Your task to perform on an android device: Open internet settings Image 0: 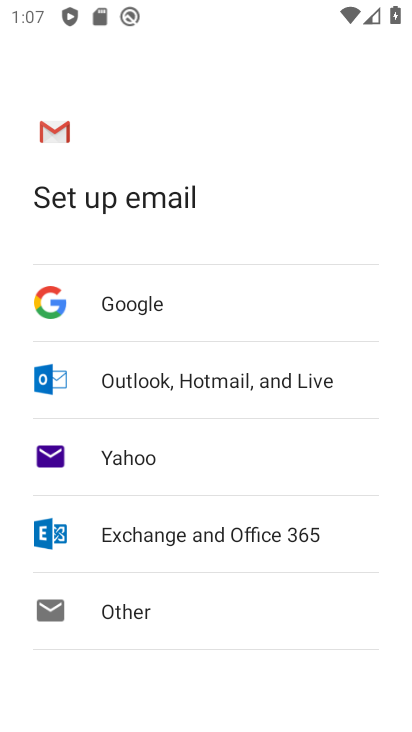
Step 0: press back button
Your task to perform on an android device: Open internet settings Image 1: 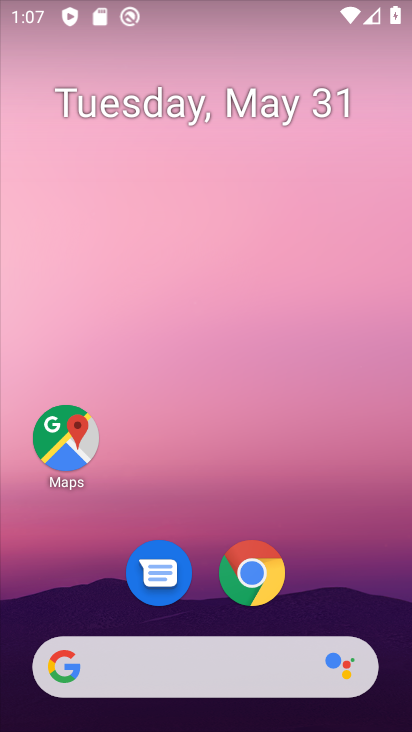
Step 1: drag from (383, 605) to (379, 141)
Your task to perform on an android device: Open internet settings Image 2: 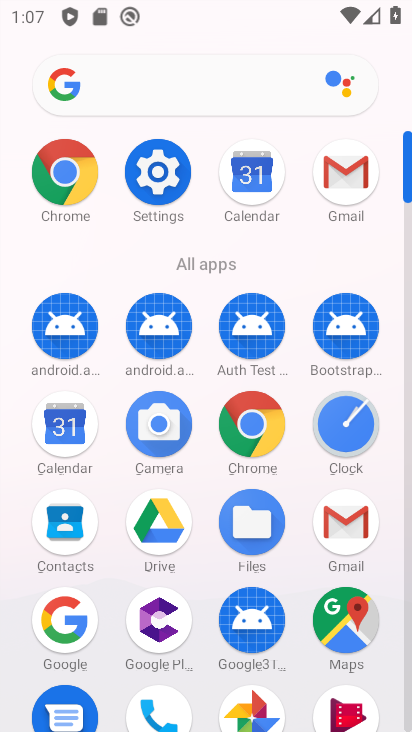
Step 2: click (167, 190)
Your task to perform on an android device: Open internet settings Image 3: 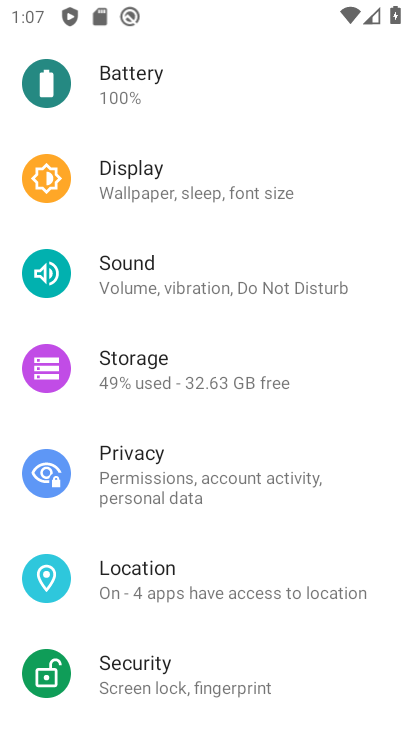
Step 3: drag from (342, 502) to (347, 384)
Your task to perform on an android device: Open internet settings Image 4: 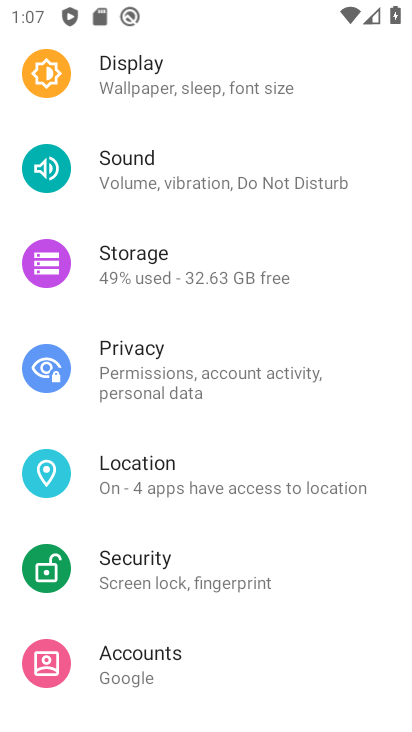
Step 4: drag from (352, 563) to (352, 442)
Your task to perform on an android device: Open internet settings Image 5: 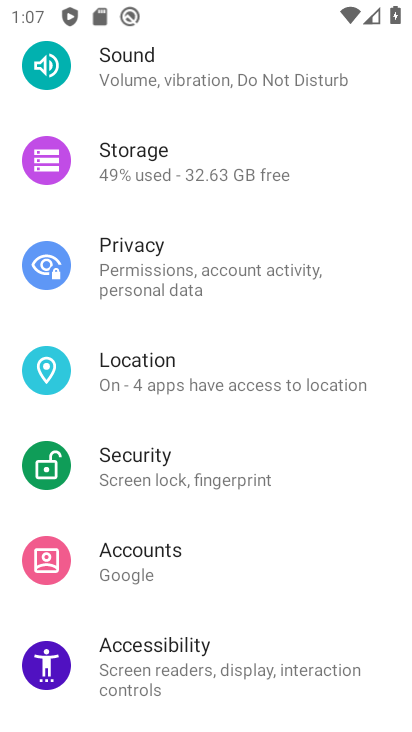
Step 5: drag from (338, 564) to (344, 464)
Your task to perform on an android device: Open internet settings Image 6: 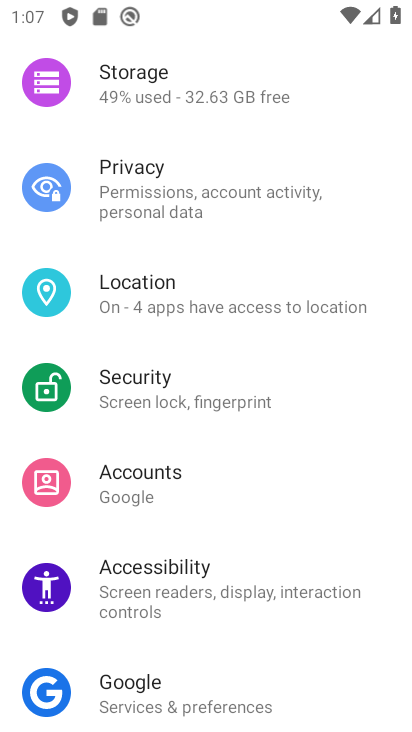
Step 6: drag from (337, 642) to (339, 515)
Your task to perform on an android device: Open internet settings Image 7: 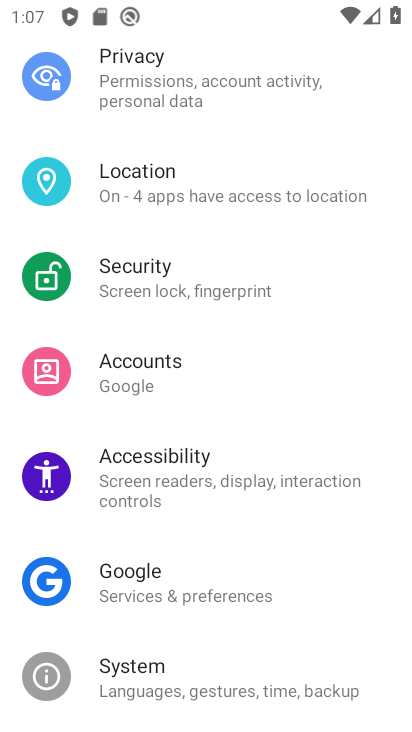
Step 7: drag from (342, 623) to (340, 517)
Your task to perform on an android device: Open internet settings Image 8: 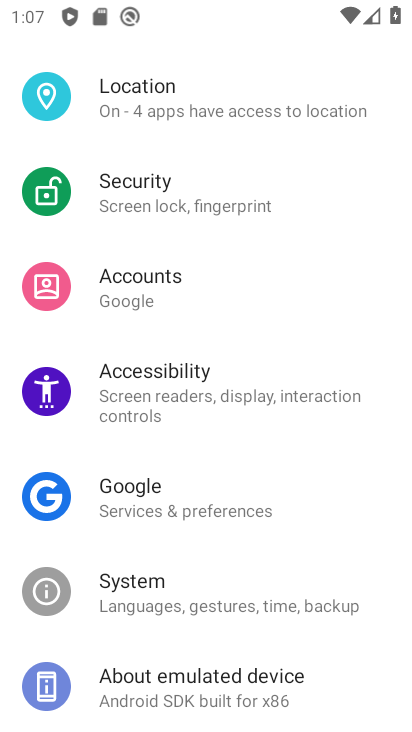
Step 8: drag from (348, 639) to (355, 537)
Your task to perform on an android device: Open internet settings Image 9: 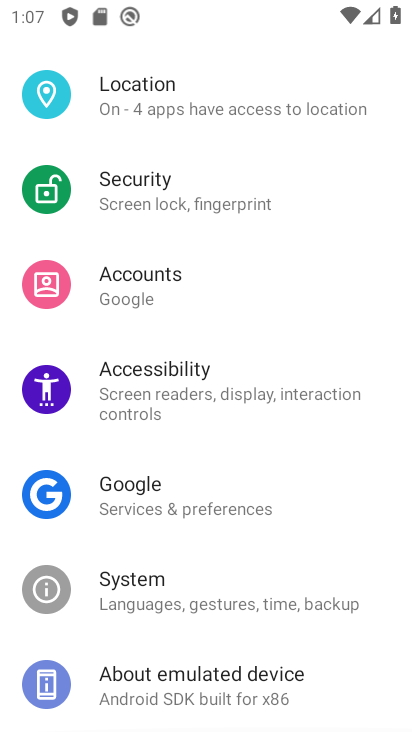
Step 9: drag from (351, 455) to (362, 522)
Your task to perform on an android device: Open internet settings Image 10: 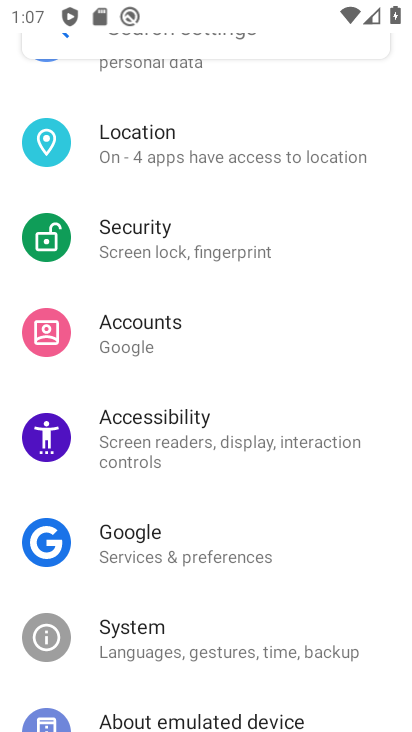
Step 10: drag from (353, 382) to (351, 476)
Your task to perform on an android device: Open internet settings Image 11: 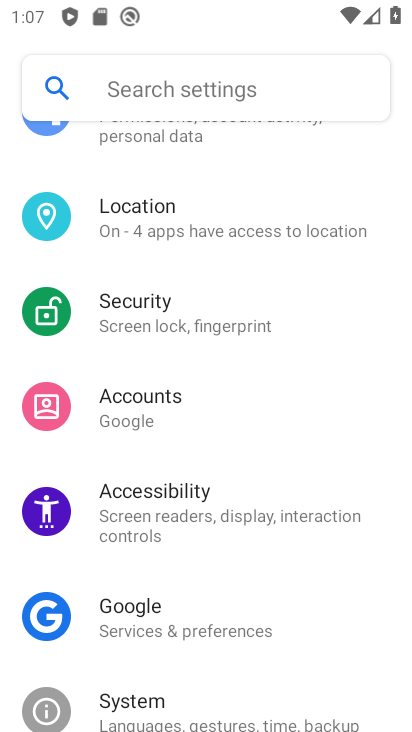
Step 11: drag from (342, 352) to (343, 439)
Your task to perform on an android device: Open internet settings Image 12: 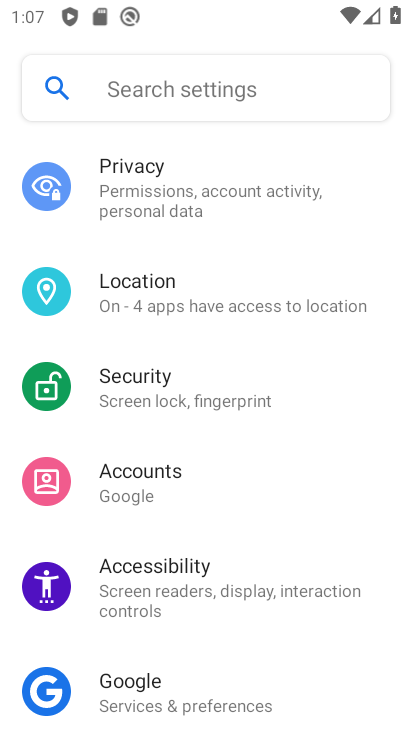
Step 12: drag from (343, 355) to (344, 432)
Your task to perform on an android device: Open internet settings Image 13: 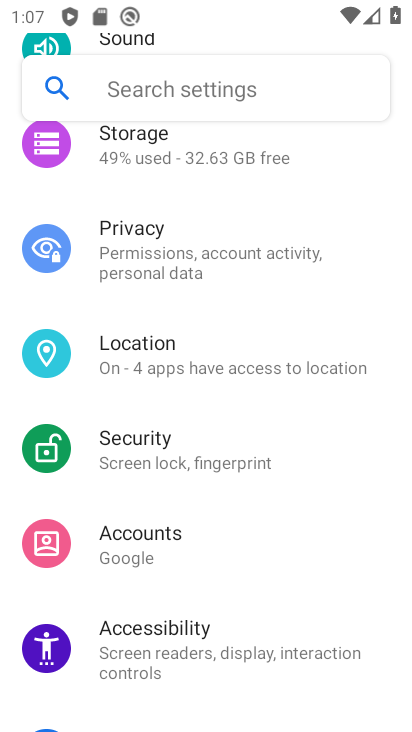
Step 13: drag from (342, 313) to (345, 424)
Your task to perform on an android device: Open internet settings Image 14: 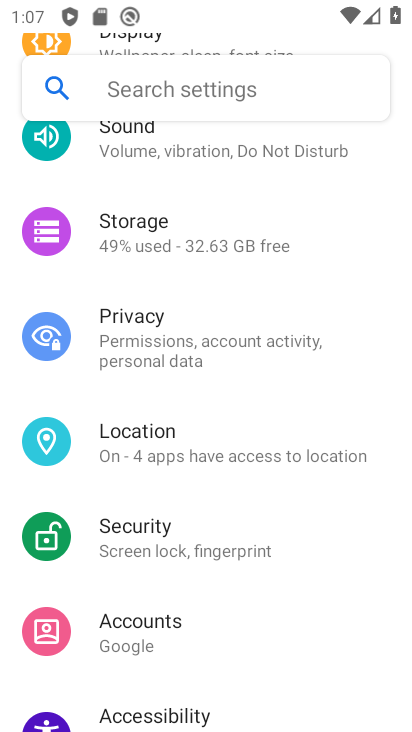
Step 14: drag from (337, 330) to (337, 439)
Your task to perform on an android device: Open internet settings Image 15: 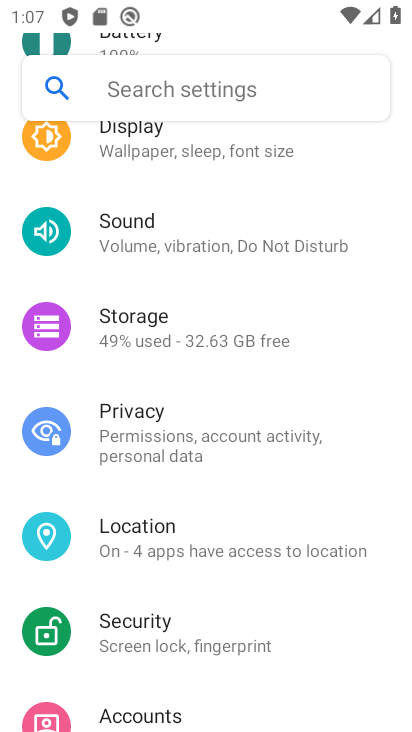
Step 15: drag from (336, 350) to (333, 452)
Your task to perform on an android device: Open internet settings Image 16: 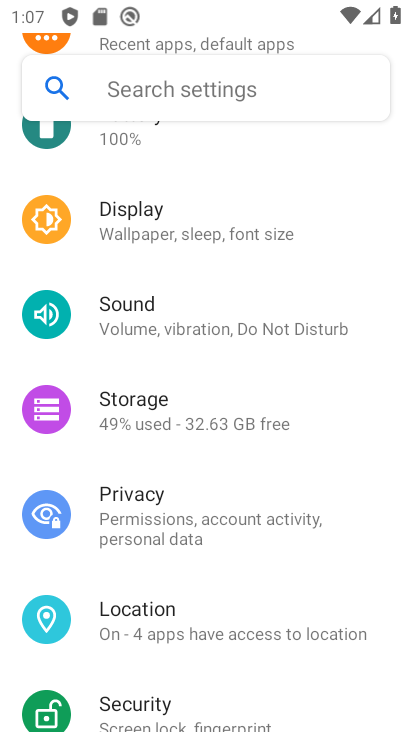
Step 16: drag from (333, 355) to (333, 452)
Your task to perform on an android device: Open internet settings Image 17: 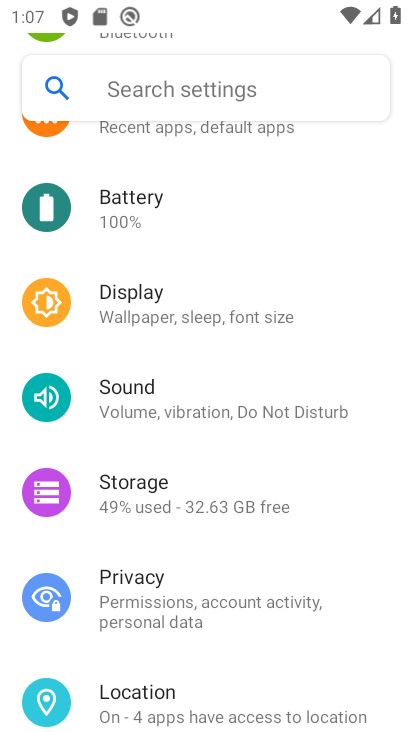
Step 17: drag from (334, 364) to (334, 477)
Your task to perform on an android device: Open internet settings Image 18: 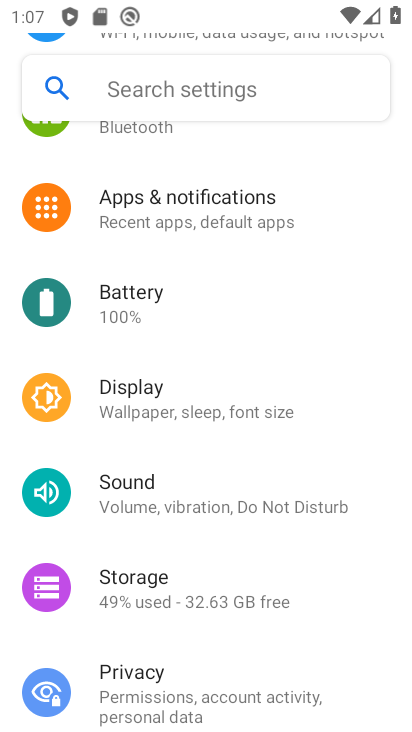
Step 18: drag from (325, 383) to (325, 483)
Your task to perform on an android device: Open internet settings Image 19: 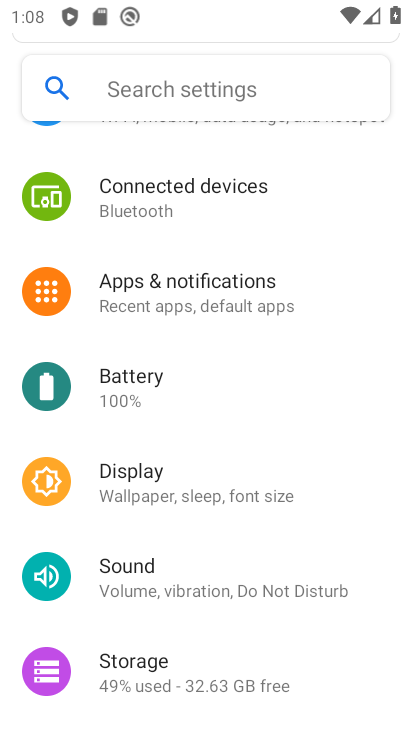
Step 19: drag from (325, 337) to (325, 459)
Your task to perform on an android device: Open internet settings Image 20: 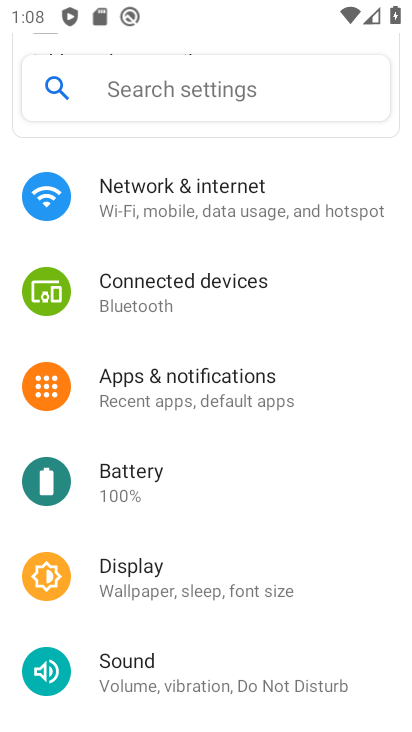
Step 20: drag from (311, 331) to (310, 434)
Your task to perform on an android device: Open internet settings Image 21: 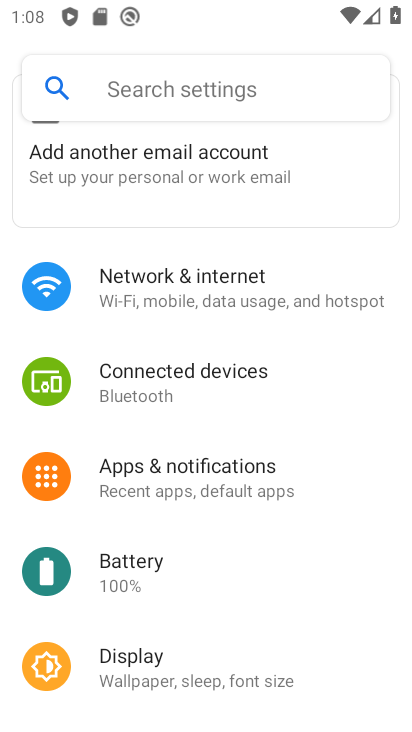
Step 21: drag from (310, 331) to (311, 436)
Your task to perform on an android device: Open internet settings Image 22: 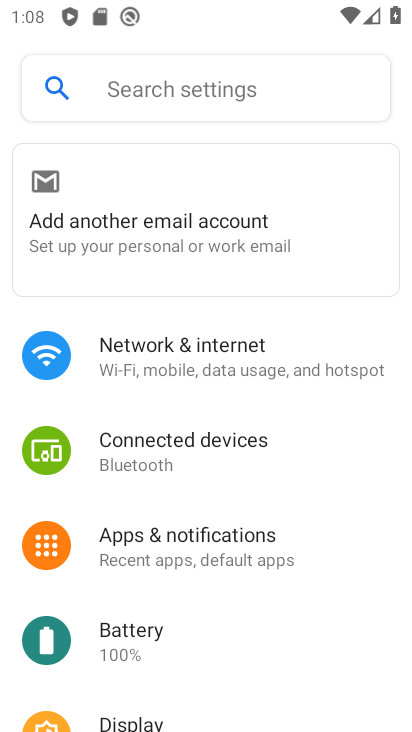
Step 22: click (304, 358)
Your task to perform on an android device: Open internet settings Image 23: 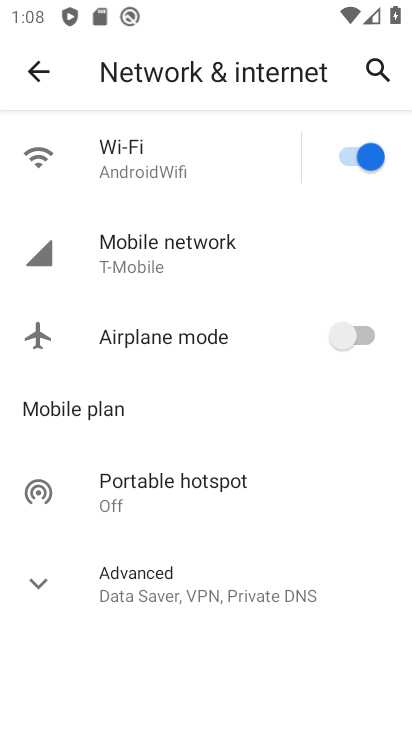
Step 23: task complete